Your task to perform on an android device: Clear all items from cart on newegg. Image 0: 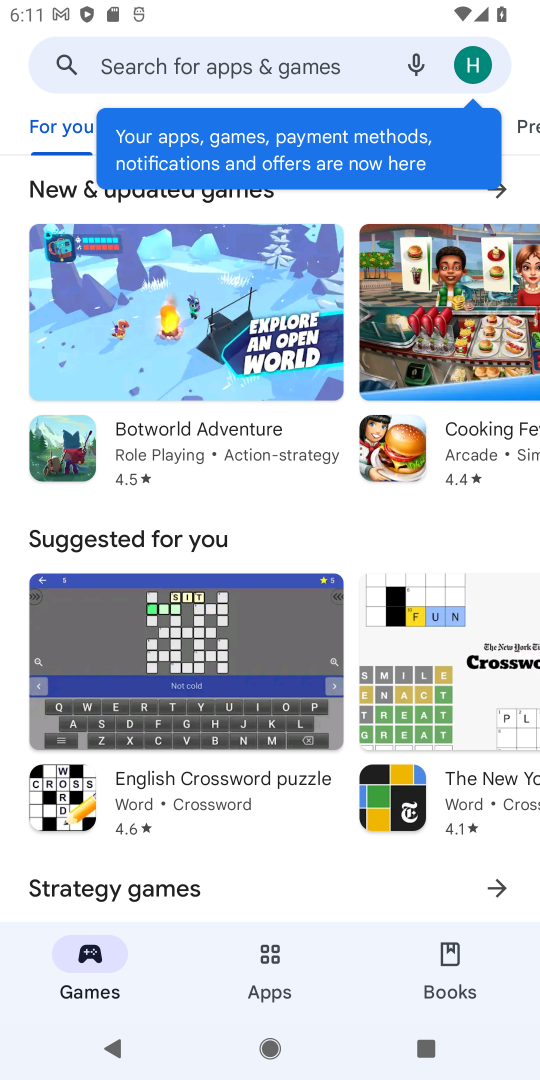
Step 0: press home button
Your task to perform on an android device: Clear all items from cart on newegg. Image 1: 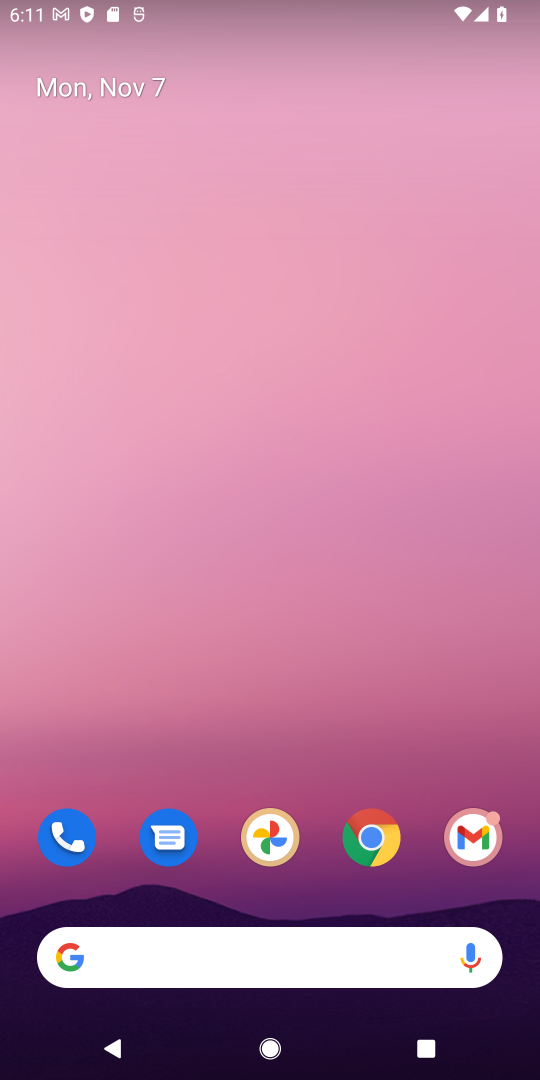
Step 1: click (362, 821)
Your task to perform on an android device: Clear all items from cart on newegg. Image 2: 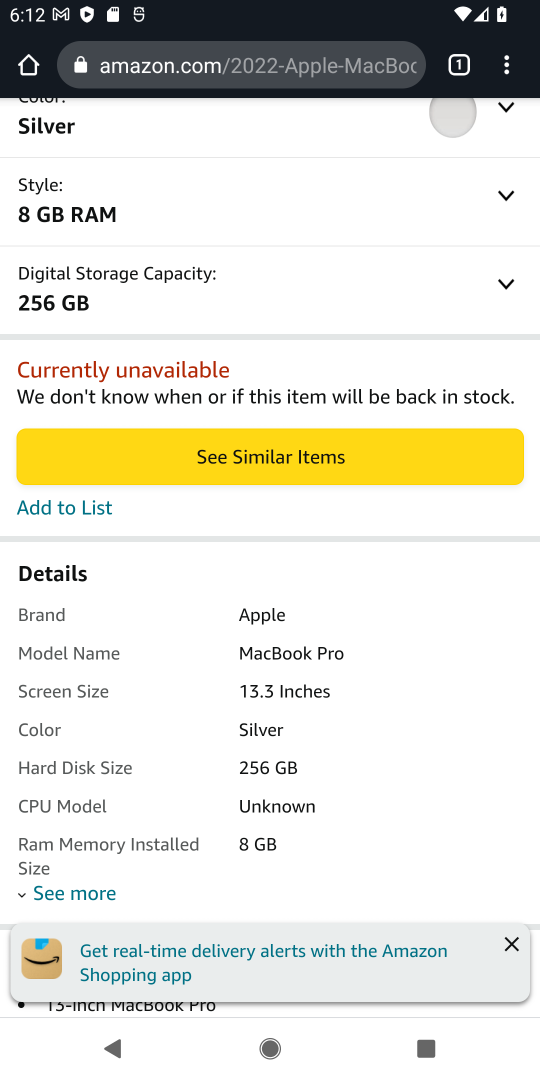
Step 2: click (254, 75)
Your task to perform on an android device: Clear all items from cart on newegg. Image 3: 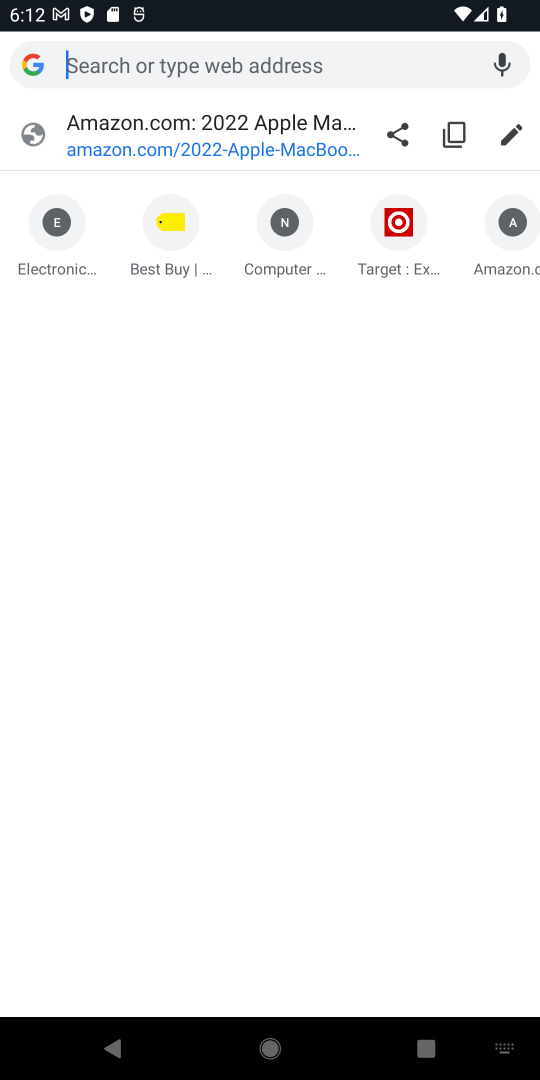
Step 3: type ""
Your task to perform on an android device: Clear all items from cart on newegg. Image 4: 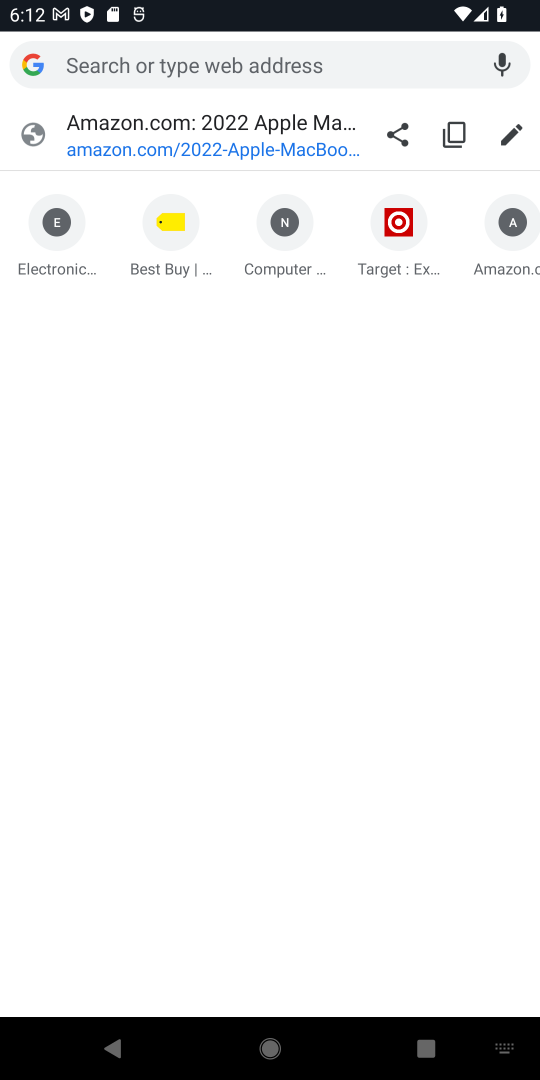
Step 4: type "newegg"
Your task to perform on an android device: Clear all items from cart on newegg. Image 5: 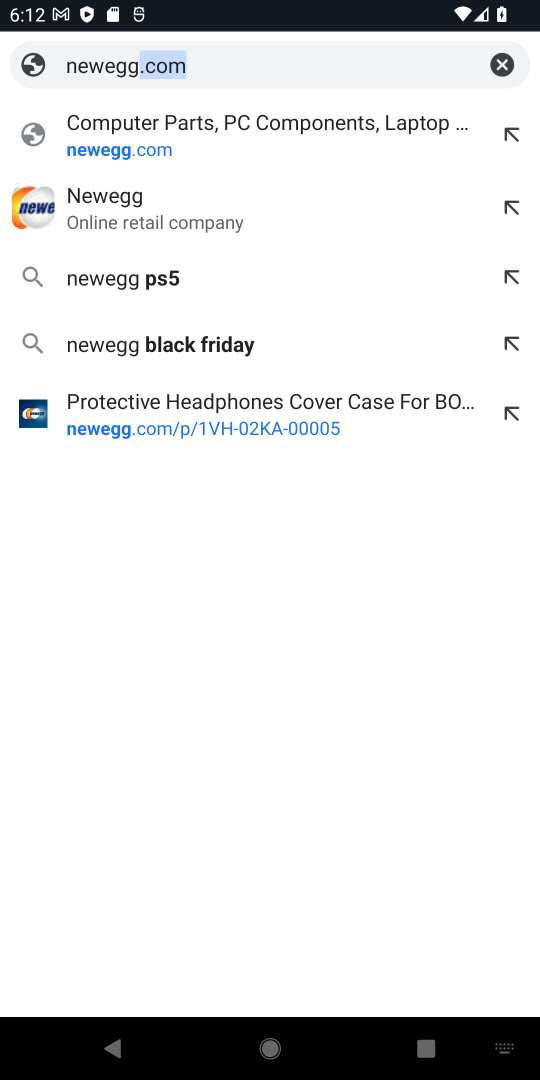
Step 5: click (209, 156)
Your task to perform on an android device: Clear all items from cart on newegg. Image 6: 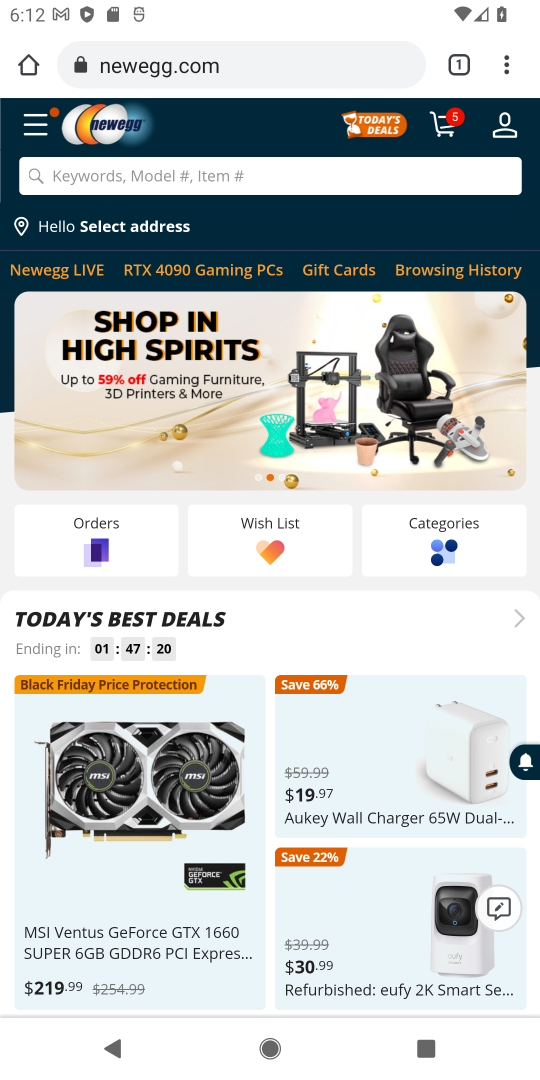
Step 6: click (436, 129)
Your task to perform on an android device: Clear all items from cart on newegg. Image 7: 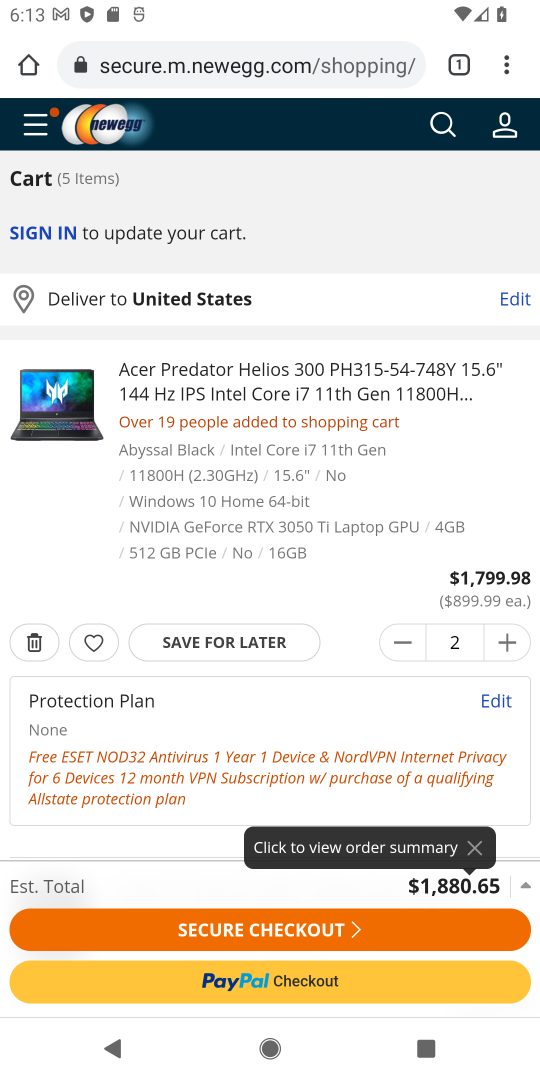
Step 7: click (34, 637)
Your task to perform on an android device: Clear all items from cart on newegg. Image 8: 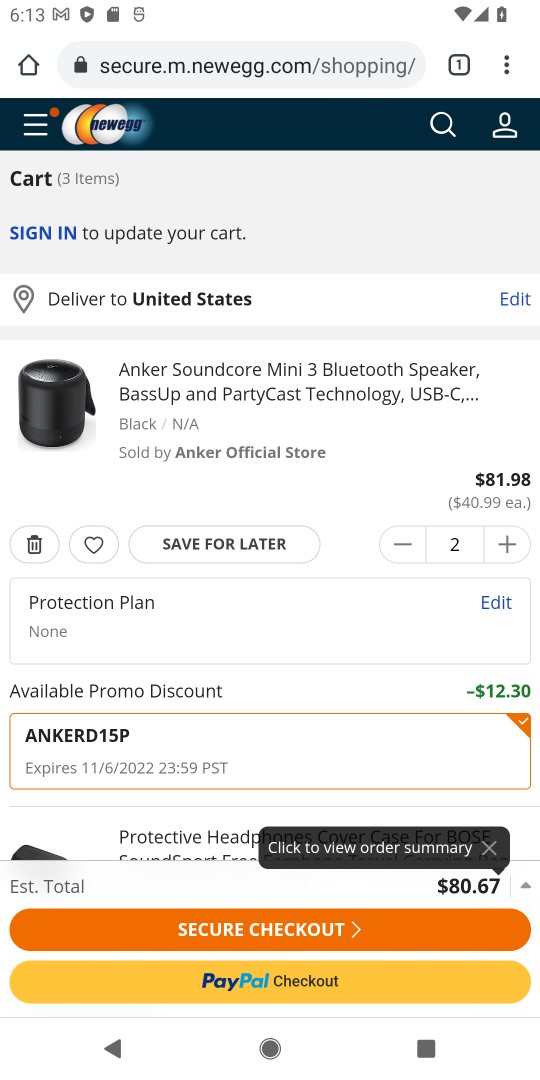
Step 8: click (38, 548)
Your task to perform on an android device: Clear all items from cart on newegg. Image 9: 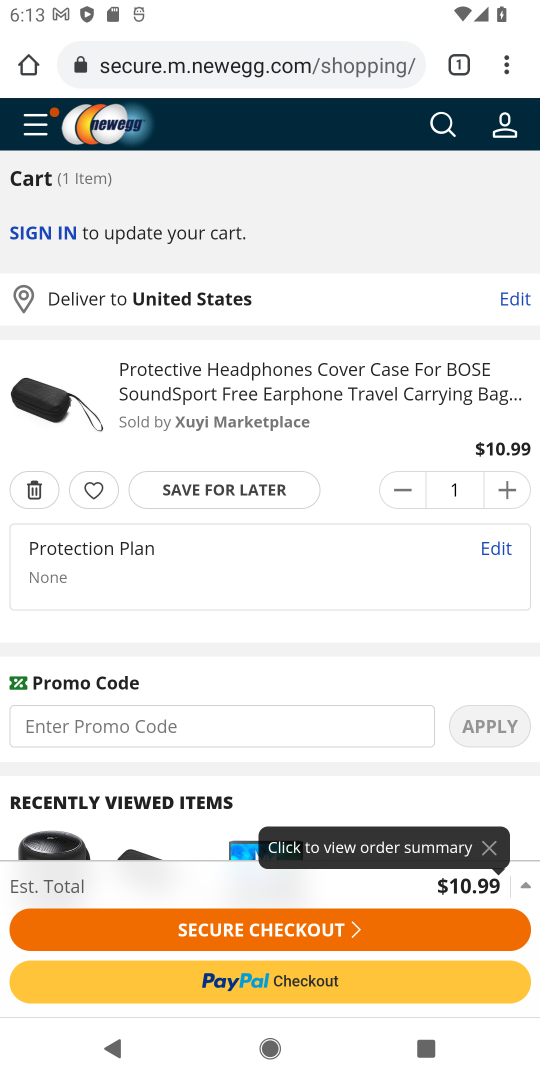
Step 9: click (28, 494)
Your task to perform on an android device: Clear all items from cart on newegg. Image 10: 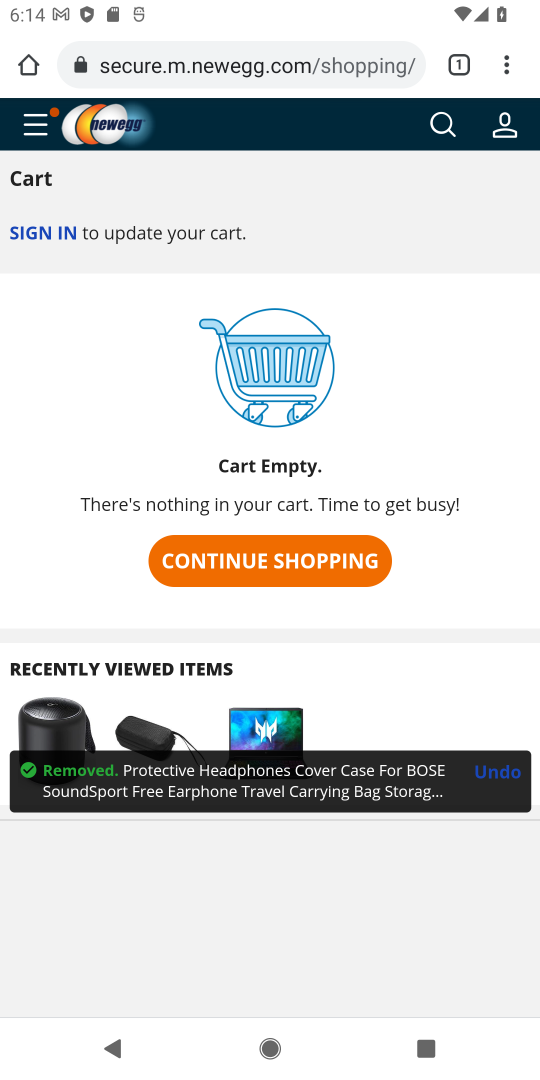
Step 10: task complete